Your task to perform on an android device: set the stopwatch Image 0: 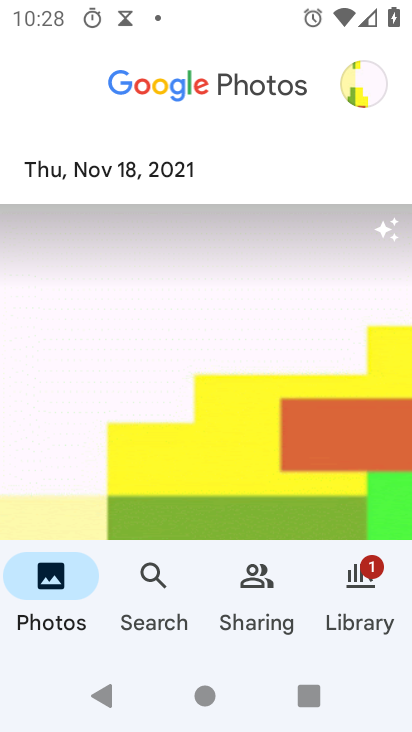
Step 0: press home button
Your task to perform on an android device: set the stopwatch Image 1: 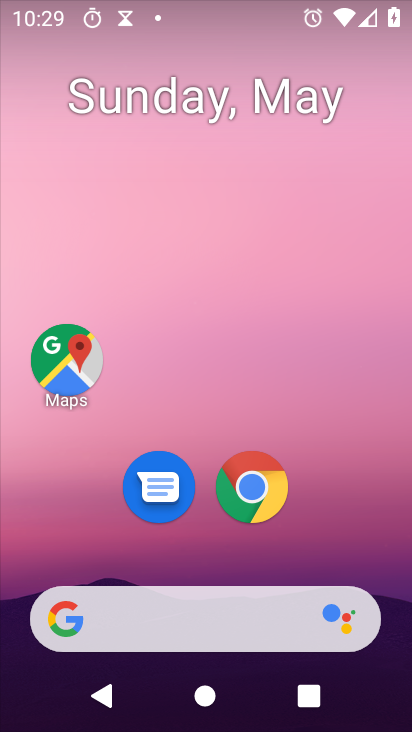
Step 1: drag from (362, 470) to (405, 39)
Your task to perform on an android device: set the stopwatch Image 2: 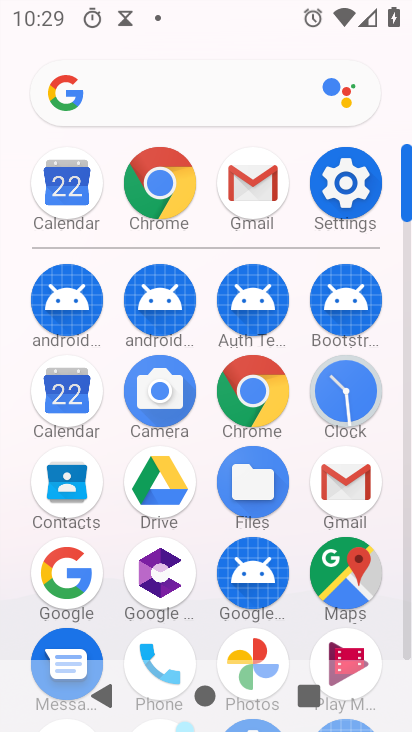
Step 2: click (356, 401)
Your task to perform on an android device: set the stopwatch Image 3: 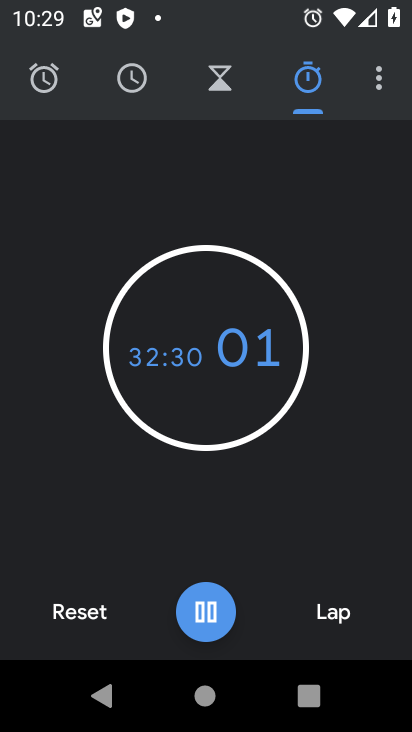
Step 3: task complete